Your task to perform on an android device: star an email in the gmail app Image 0: 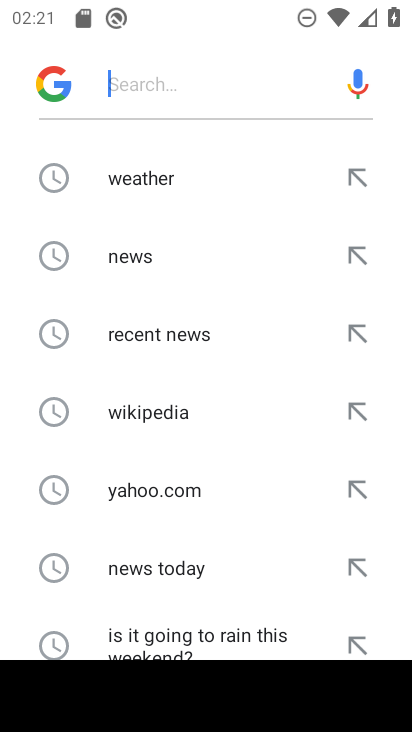
Step 0: press home button
Your task to perform on an android device: star an email in the gmail app Image 1: 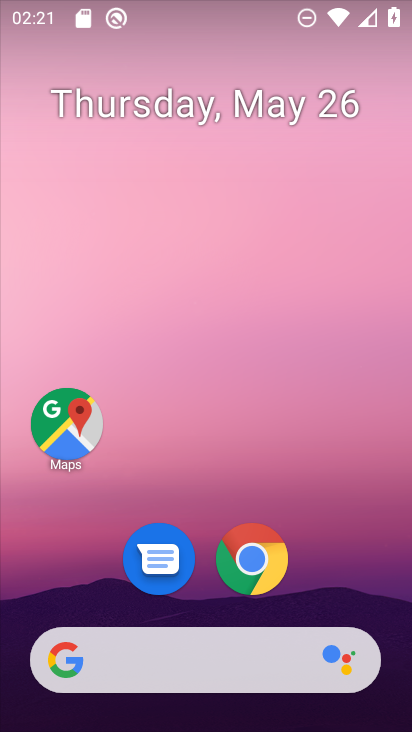
Step 1: drag from (272, 566) to (391, 176)
Your task to perform on an android device: star an email in the gmail app Image 2: 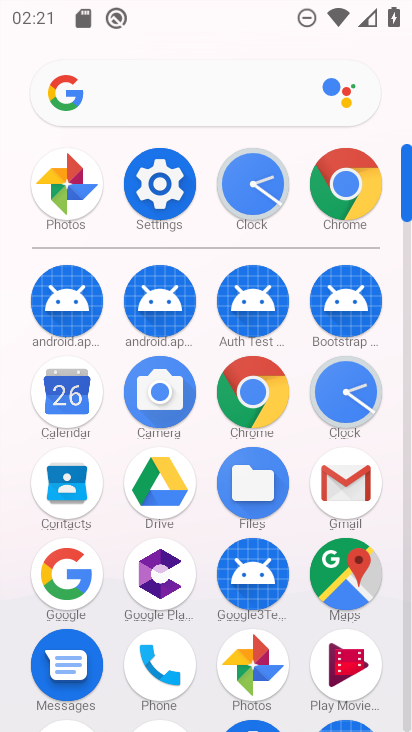
Step 2: click (367, 483)
Your task to perform on an android device: star an email in the gmail app Image 3: 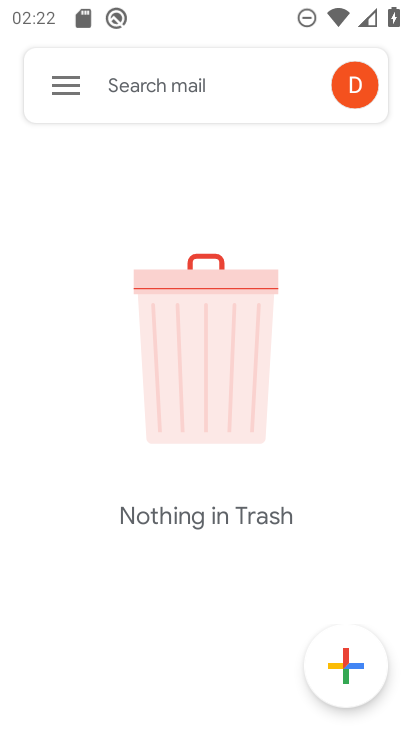
Step 3: task complete